Your task to perform on an android device: Go to Android settings Image 0: 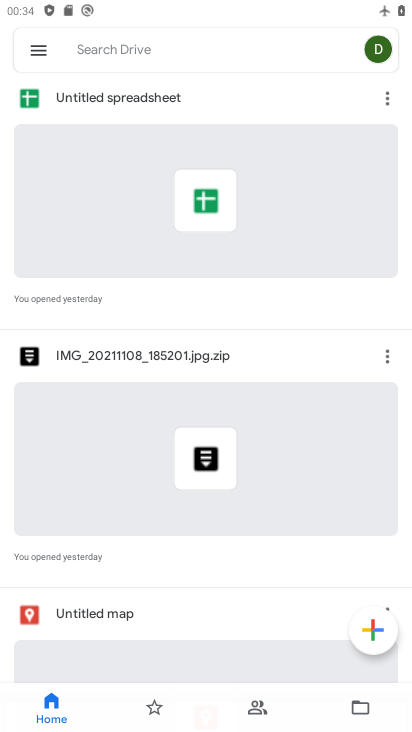
Step 0: press home button
Your task to perform on an android device: Go to Android settings Image 1: 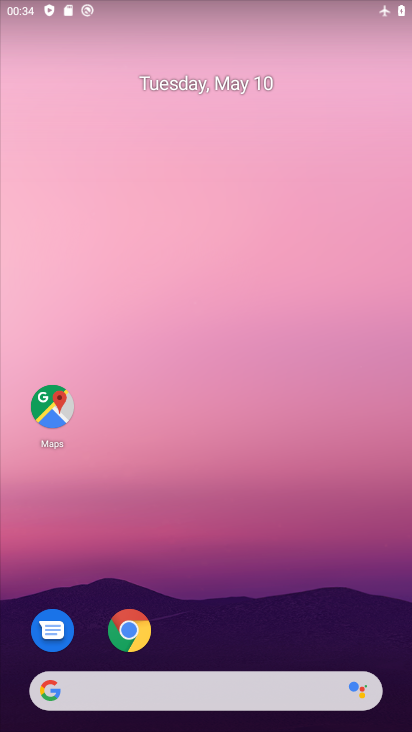
Step 1: drag from (208, 726) to (203, 191)
Your task to perform on an android device: Go to Android settings Image 2: 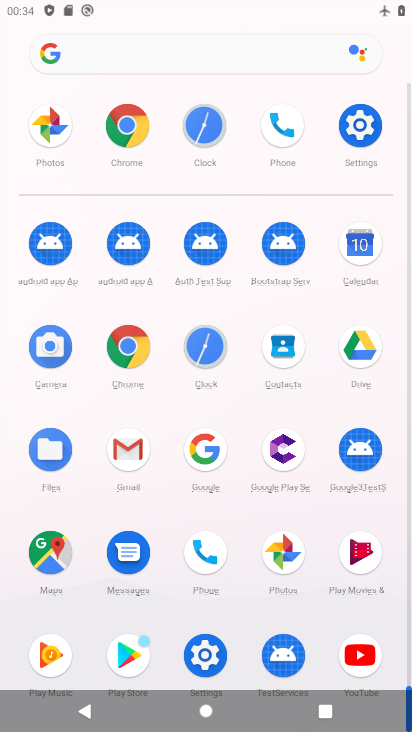
Step 2: click (361, 135)
Your task to perform on an android device: Go to Android settings Image 3: 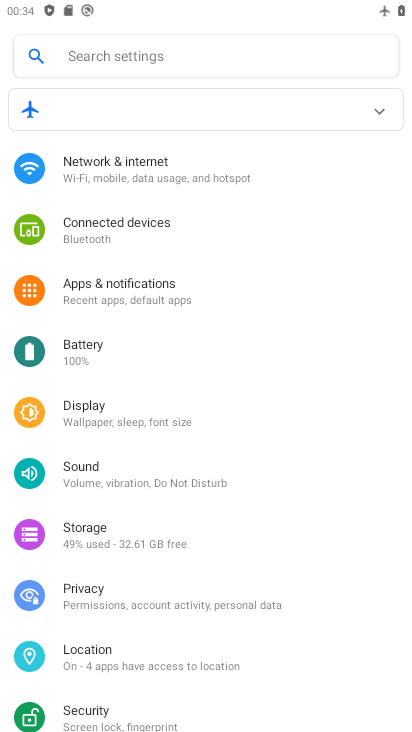
Step 3: drag from (194, 680) to (191, 246)
Your task to perform on an android device: Go to Android settings Image 4: 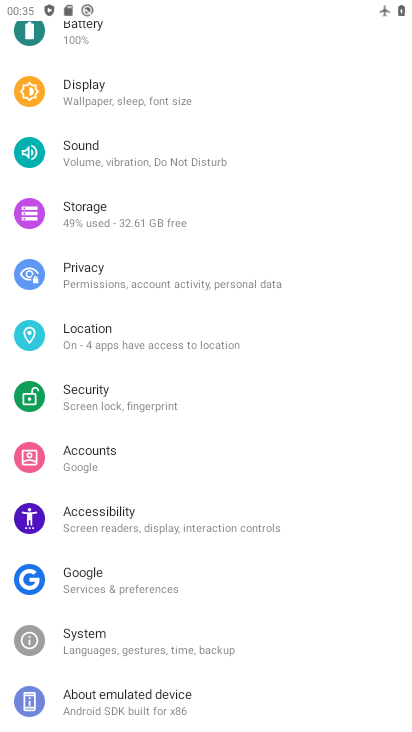
Step 4: click (96, 703)
Your task to perform on an android device: Go to Android settings Image 5: 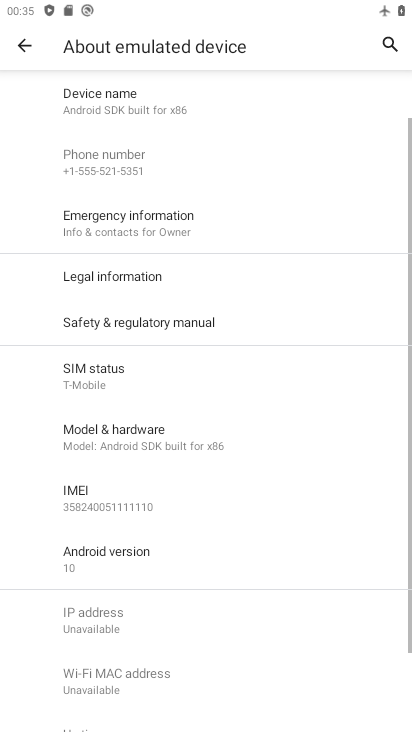
Step 5: drag from (190, 635) to (172, 520)
Your task to perform on an android device: Go to Android settings Image 6: 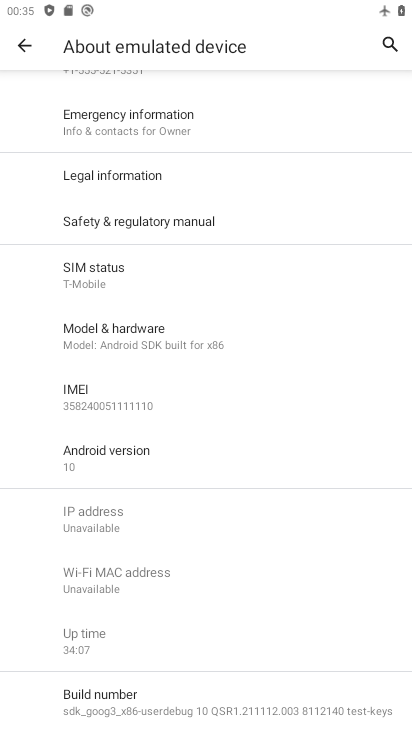
Step 6: click (112, 451)
Your task to perform on an android device: Go to Android settings Image 7: 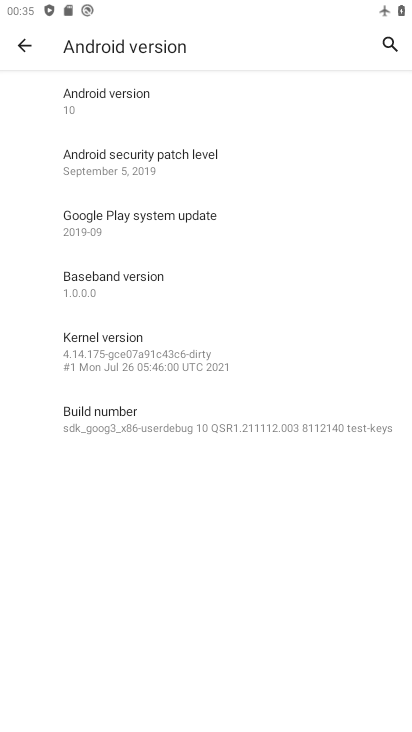
Step 7: task complete